Your task to perform on an android device: manage bookmarks in the chrome app Image 0: 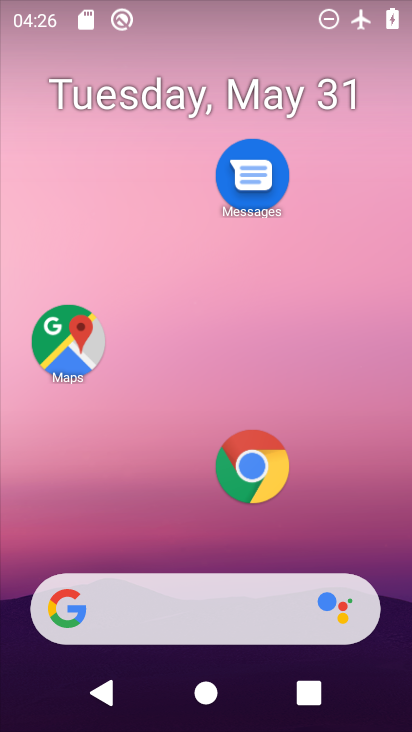
Step 0: click (238, 459)
Your task to perform on an android device: manage bookmarks in the chrome app Image 1: 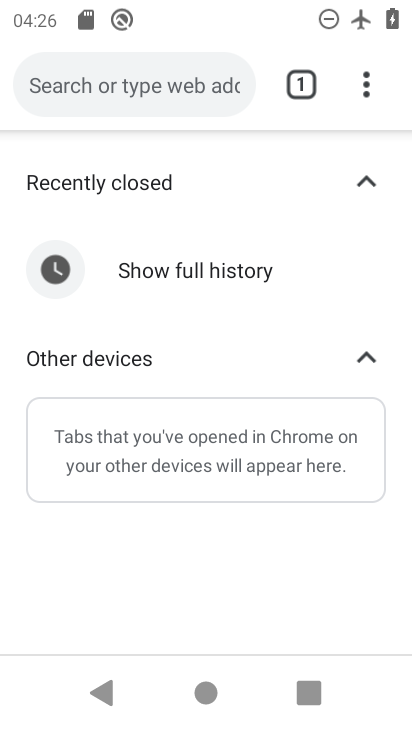
Step 1: drag from (362, 77) to (93, 328)
Your task to perform on an android device: manage bookmarks in the chrome app Image 2: 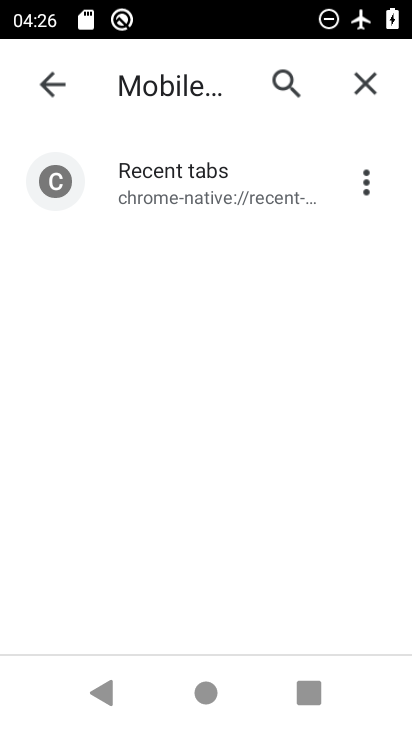
Step 2: click (362, 177)
Your task to perform on an android device: manage bookmarks in the chrome app Image 3: 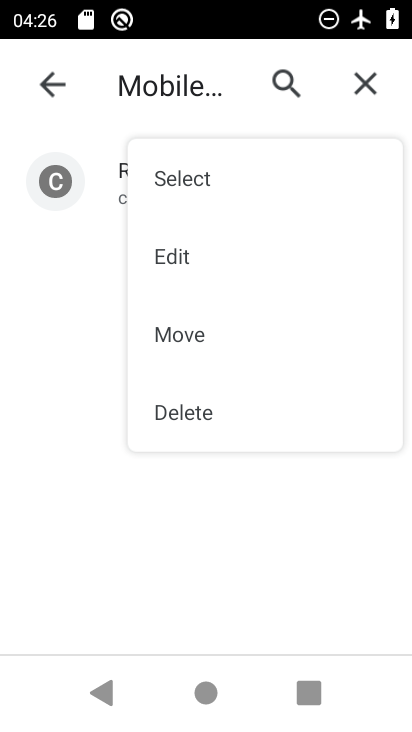
Step 3: click (184, 408)
Your task to perform on an android device: manage bookmarks in the chrome app Image 4: 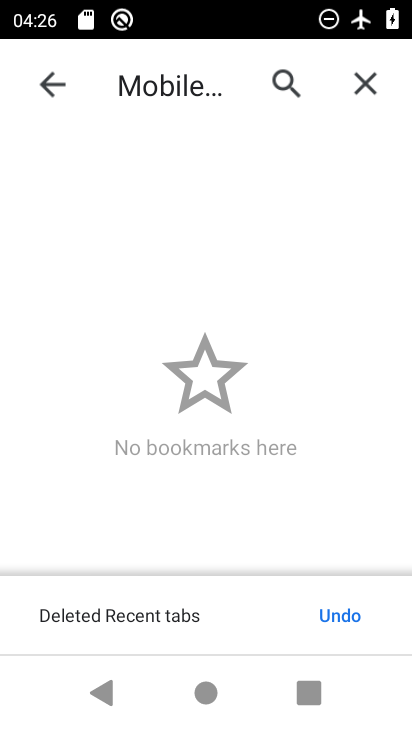
Step 4: task complete